Your task to perform on an android device: turn on javascript in the chrome app Image 0: 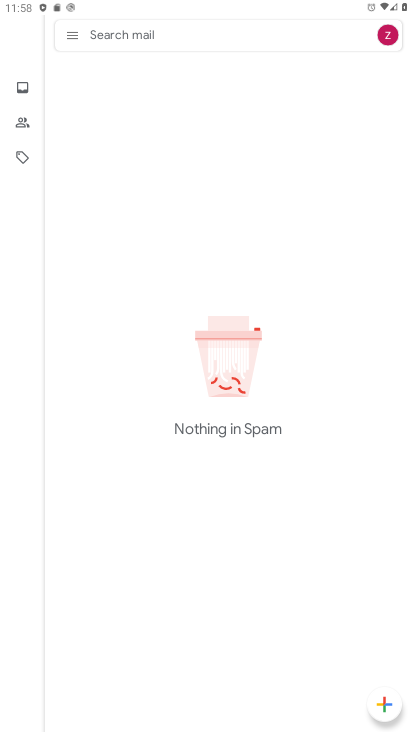
Step 0: click (253, 549)
Your task to perform on an android device: turn on javascript in the chrome app Image 1: 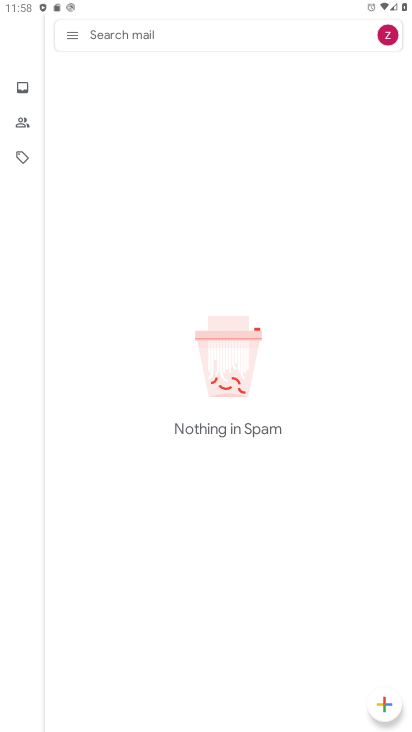
Step 1: click (249, 545)
Your task to perform on an android device: turn on javascript in the chrome app Image 2: 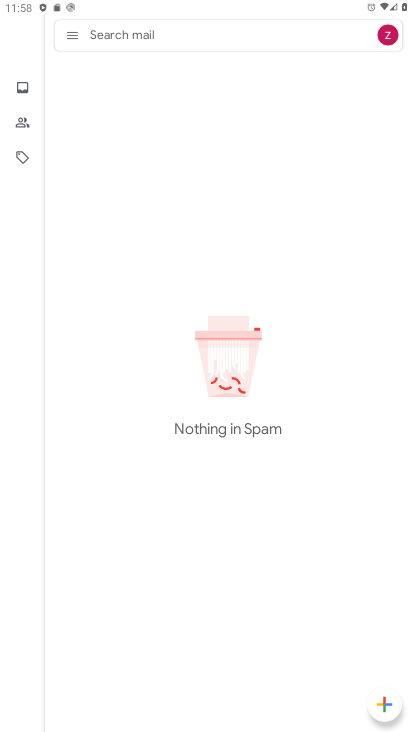
Step 2: press home button
Your task to perform on an android device: turn on javascript in the chrome app Image 3: 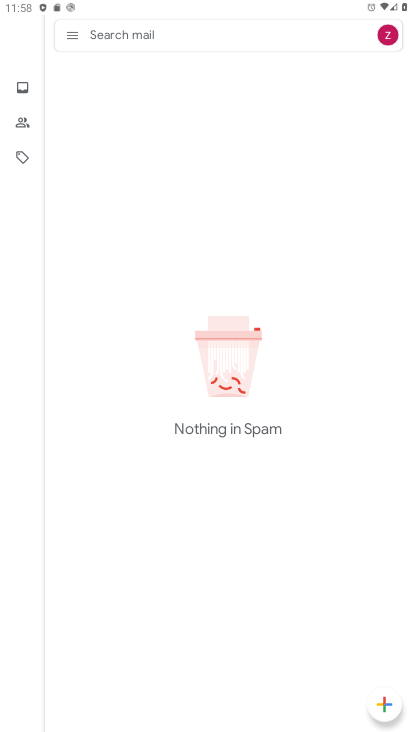
Step 3: drag from (95, 612) to (264, 158)
Your task to perform on an android device: turn on javascript in the chrome app Image 4: 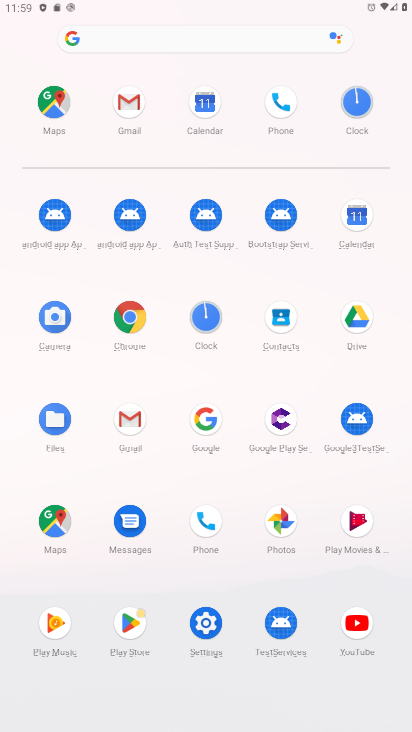
Step 4: drag from (171, 553) to (222, 102)
Your task to perform on an android device: turn on javascript in the chrome app Image 5: 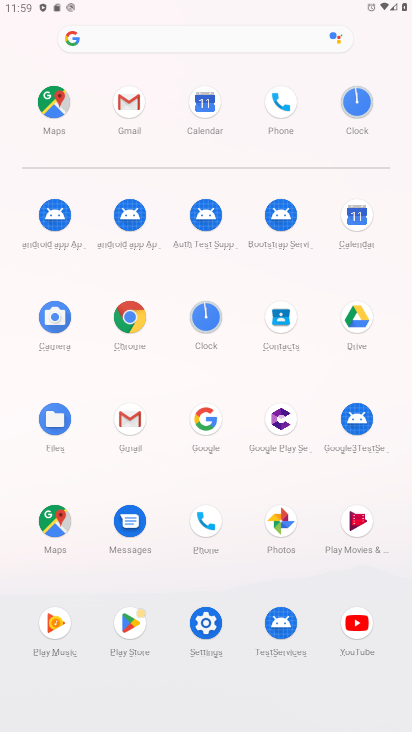
Step 5: click (128, 315)
Your task to perform on an android device: turn on javascript in the chrome app Image 6: 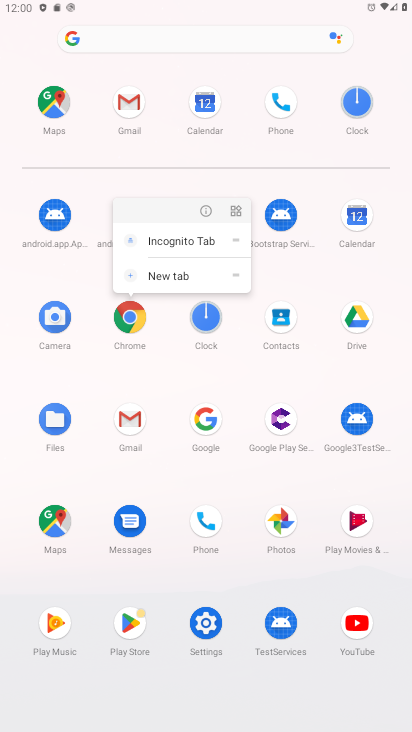
Step 6: click (207, 209)
Your task to perform on an android device: turn on javascript in the chrome app Image 7: 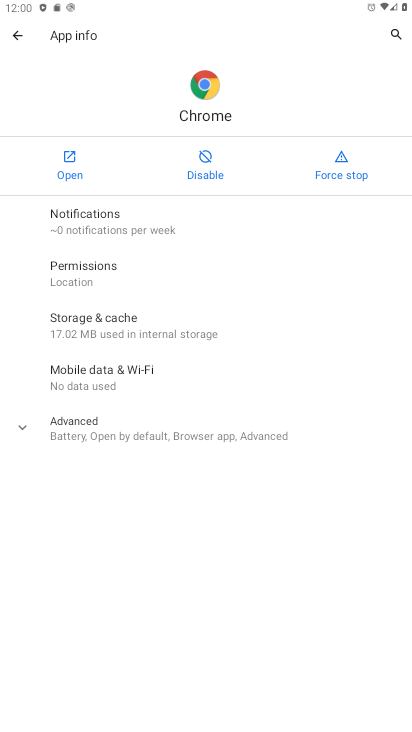
Step 7: click (73, 167)
Your task to perform on an android device: turn on javascript in the chrome app Image 8: 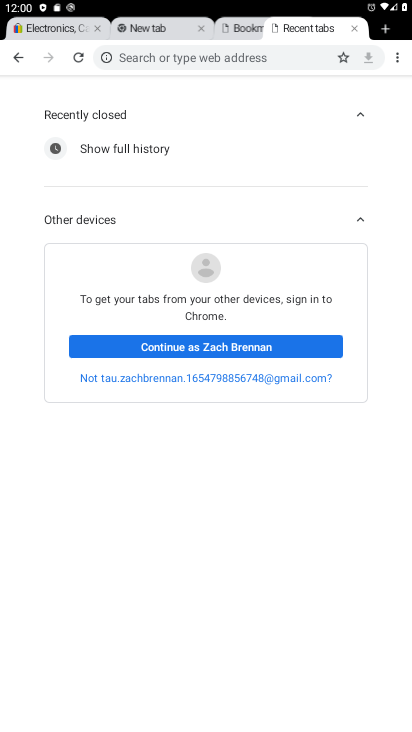
Step 8: click (396, 55)
Your task to perform on an android device: turn on javascript in the chrome app Image 9: 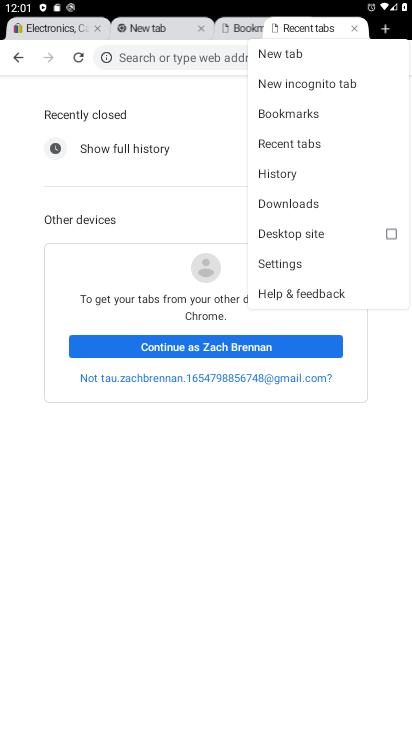
Step 9: click (279, 271)
Your task to perform on an android device: turn on javascript in the chrome app Image 10: 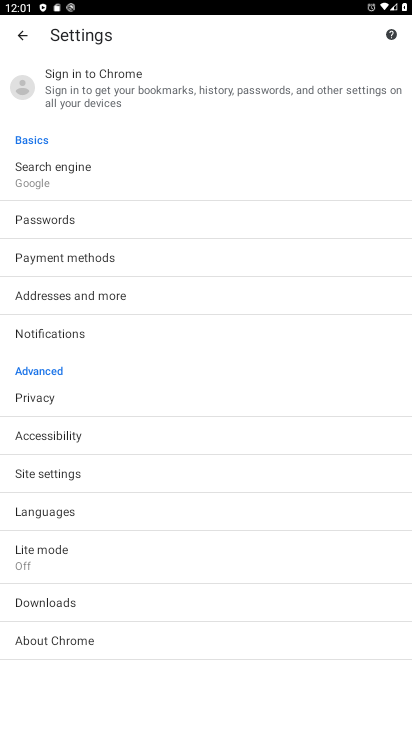
Step 10: drag from (129, 479) to (156, 161)
Your task to perform on an android device: turn on javascript in the chrome app Image 11: 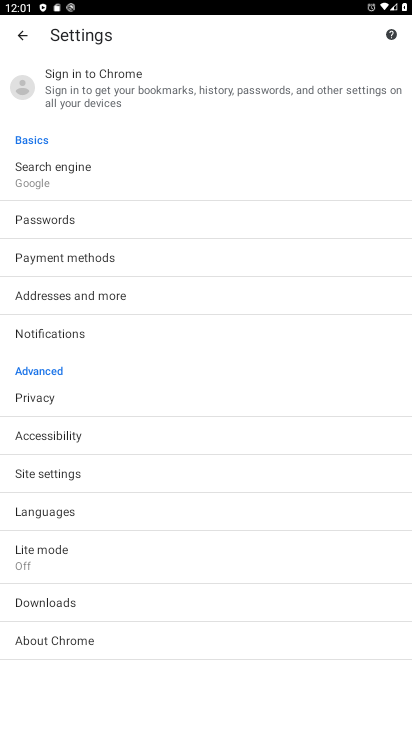
Step 11: click (72, 476)
Your task to perform on an android device: turn on javascript in the chrome app Image 12: 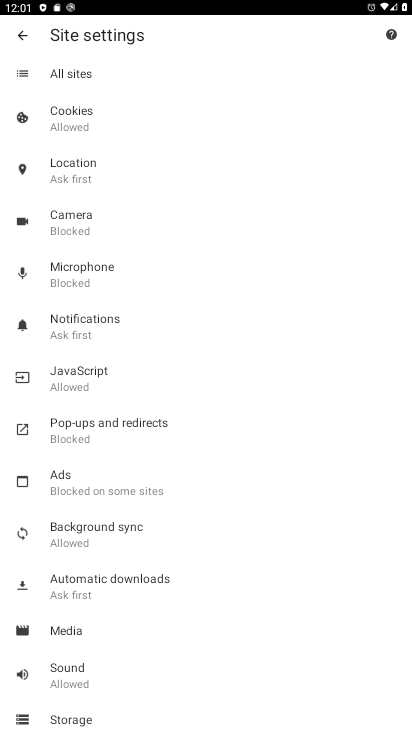
Step 12: click (91, 385)
Your task to perform on an android device: turn on javascript in the chrome app Image 13: 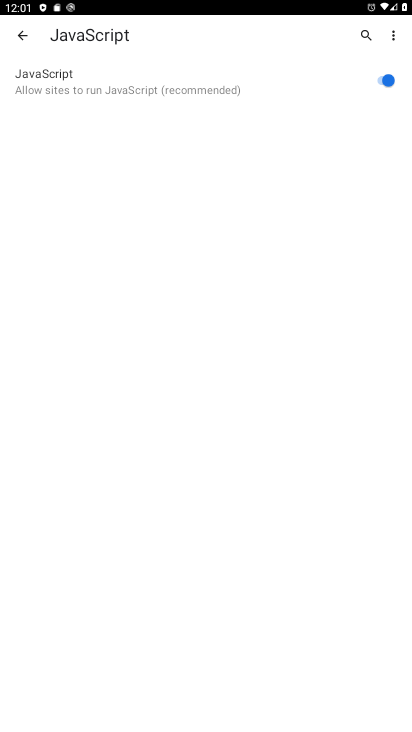
Step 13: task complete